Your task to perform on an android device: open wifi settings Image 0: 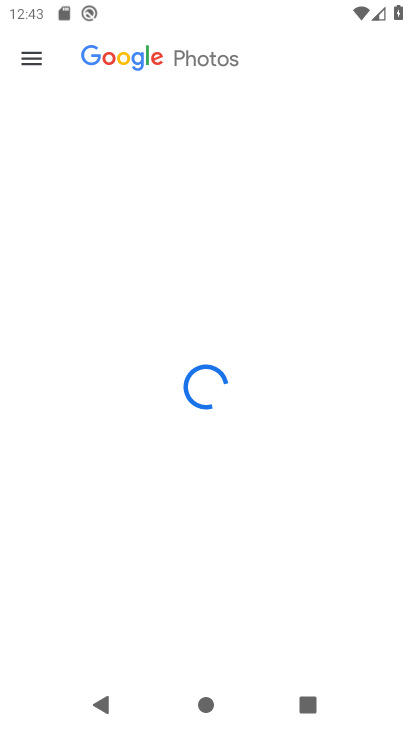
Step 0: press back button
Your task to perform on an android device: open wifi settings Image 1: 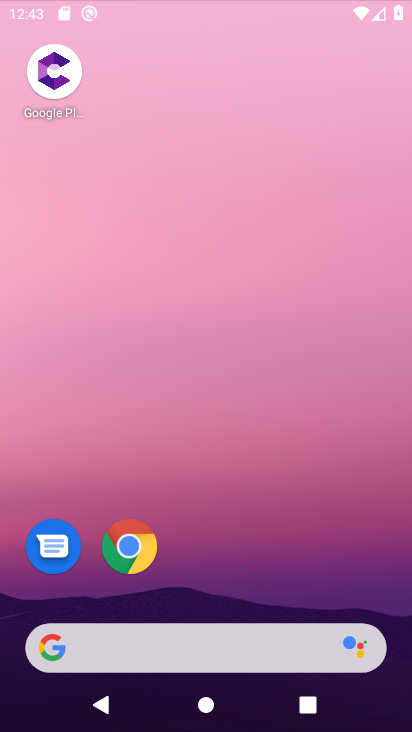
Step 1: press back button
Your task to perform on an android device: open wifi settings Image 2: 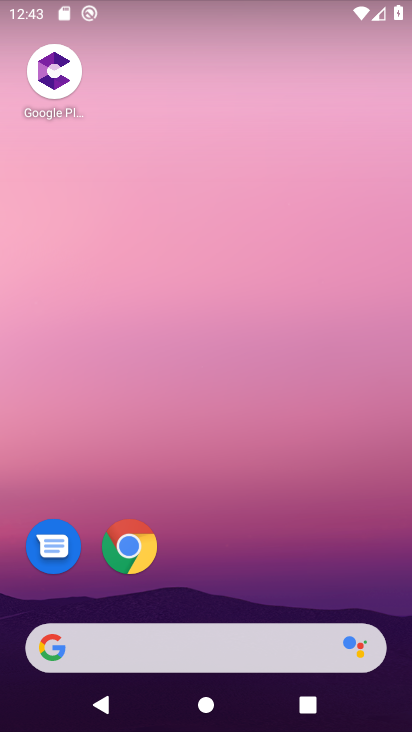
Step 2: drag from (80, 12) to (125, 451)
Your task to perform on an android device: open wifi settings Image 3: 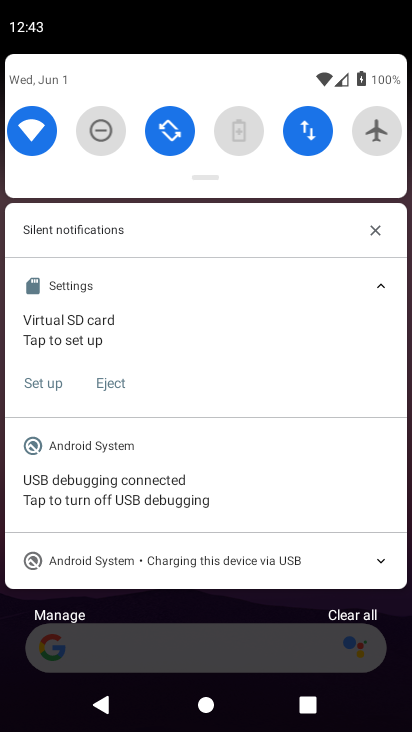
Step 3: click (32, 128)
Your task to perform on an android device: open wifi settings Image 4: 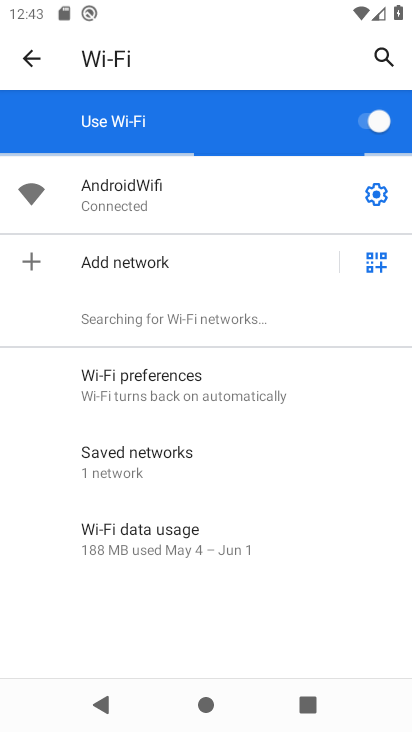
Step 4: task complete